Your task to perform on an android device: uninstall "Microsoft Authenticator" Image 0: 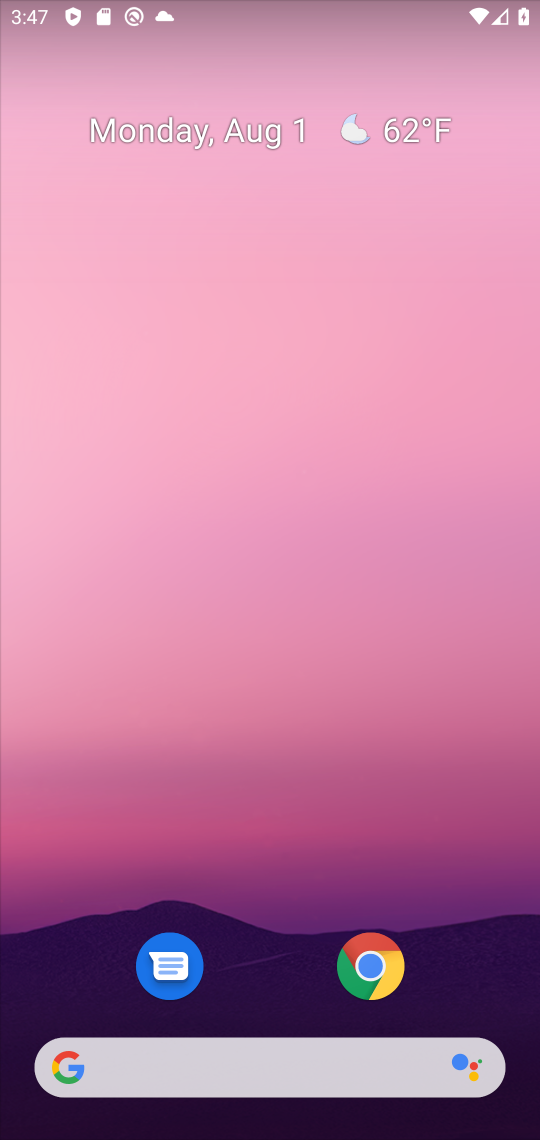
Step 0: press home button
Your task to perform on an android device: uninstall "Microsoft Authenticator" Image 1: 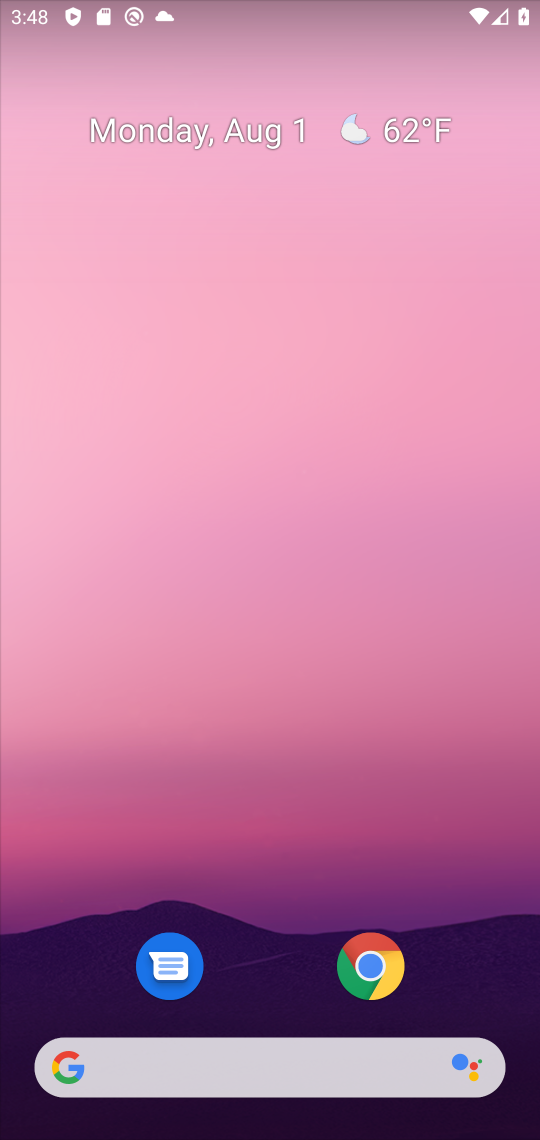
Step 1: drag from (183, 1026) to (109, 180)
Your task to perform on an android device: uninstall "Microsoft Authenticator" Image 2: 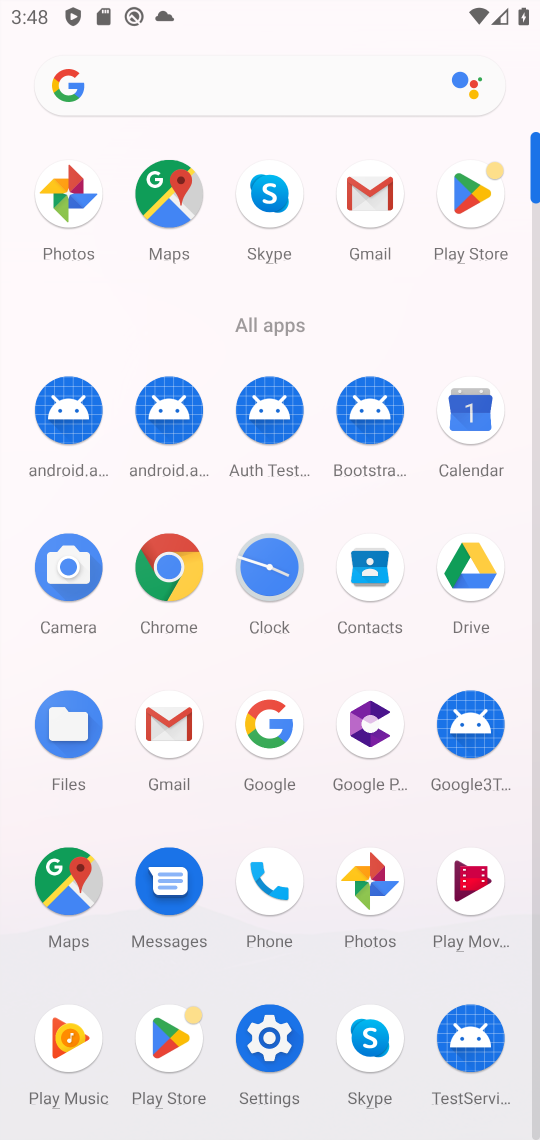
Step 2: click (476, 197)
Your task to perform on an android device: uninstall "Microsoft Authenticator" Image 3: 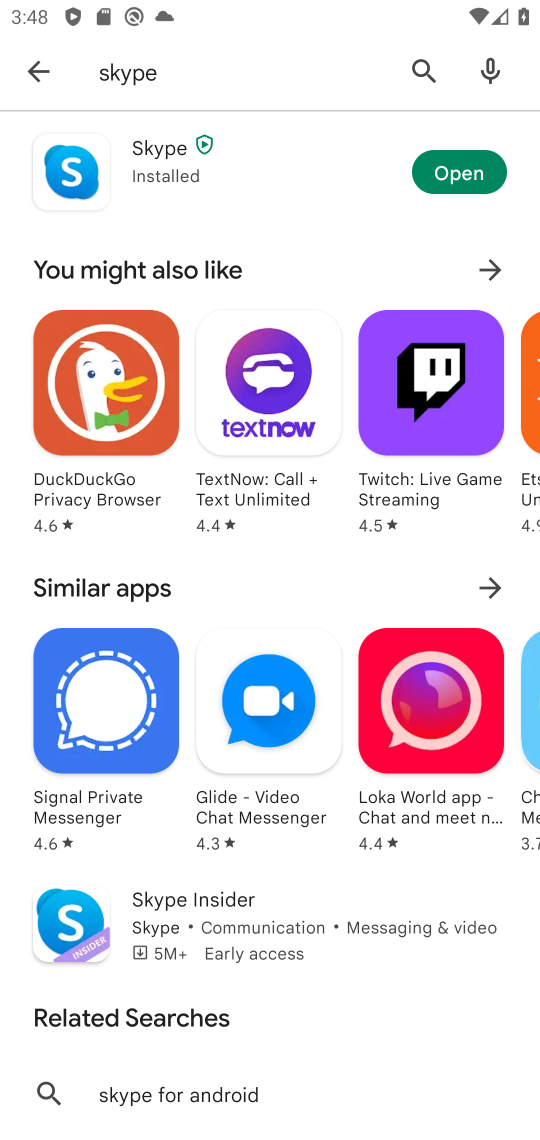
Step 3: click (415, 73)
Your task to perform on an android device: uninstall "Microsoft Authenticator" Image 4: 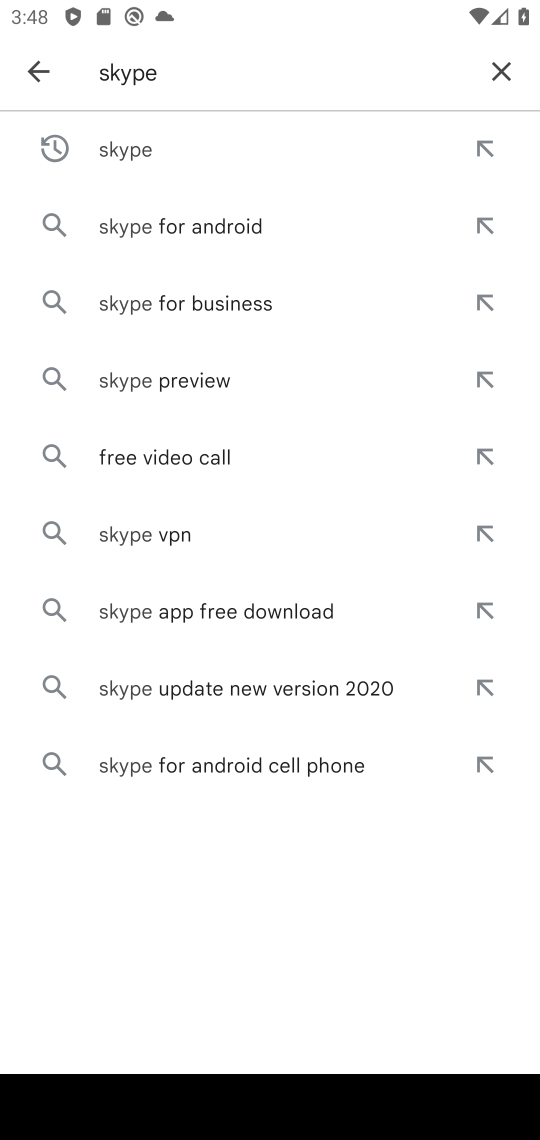
Step 4: click (506, 64)
Your task to perform on an android device: uninstall "Microsoft Authenticator" Image 5: 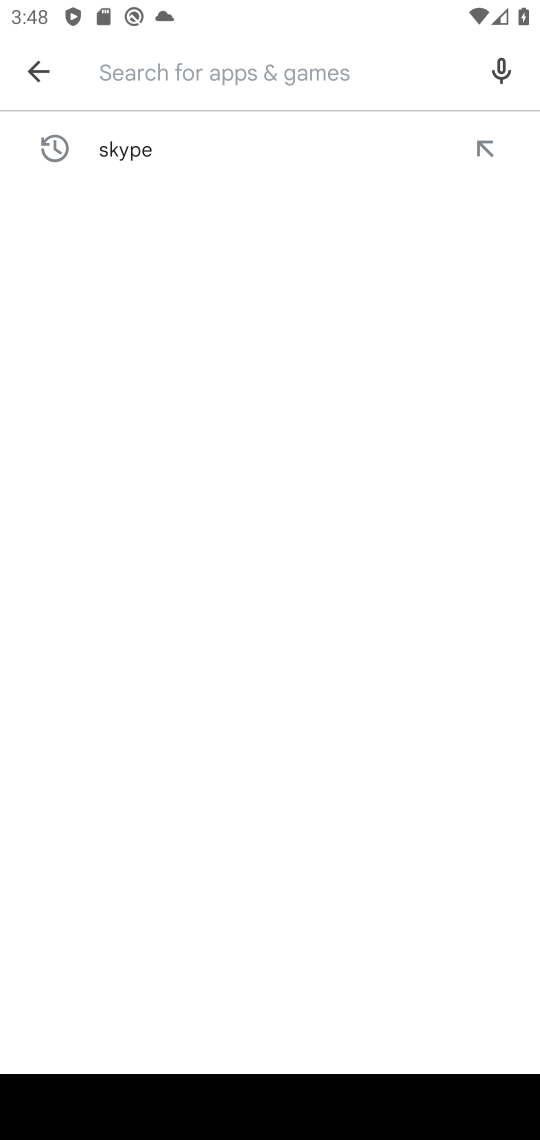
Step 5: type "Microsoft Authenticator"
Your task to perform on an android device: uninstall "Microsoft Authenticator" Image 6: 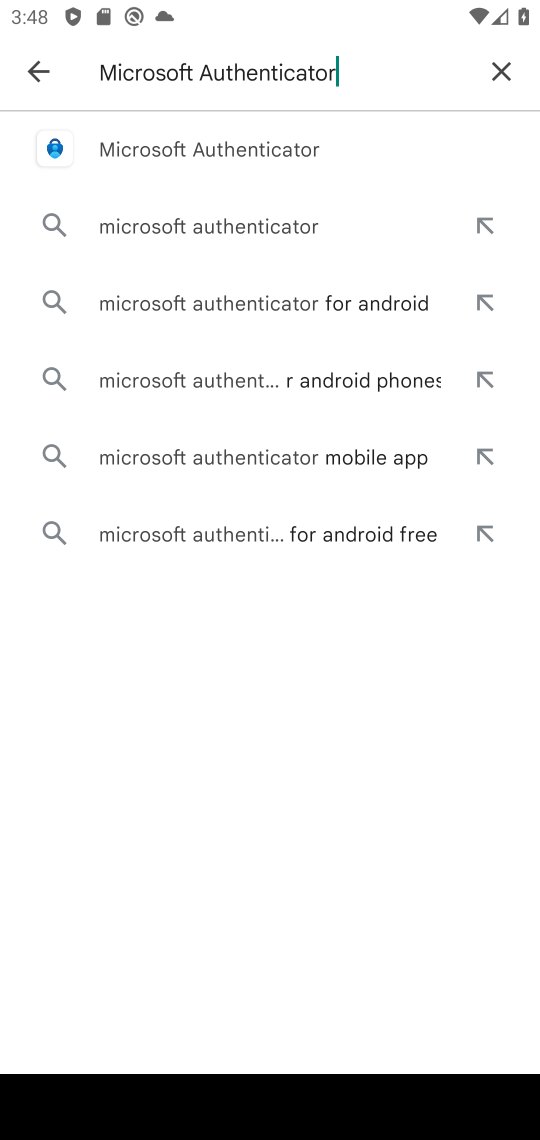
Step 6: click (152, 144)
Your task to perform on an android device: uninstall "Microsoft Authenticator" Image 7: 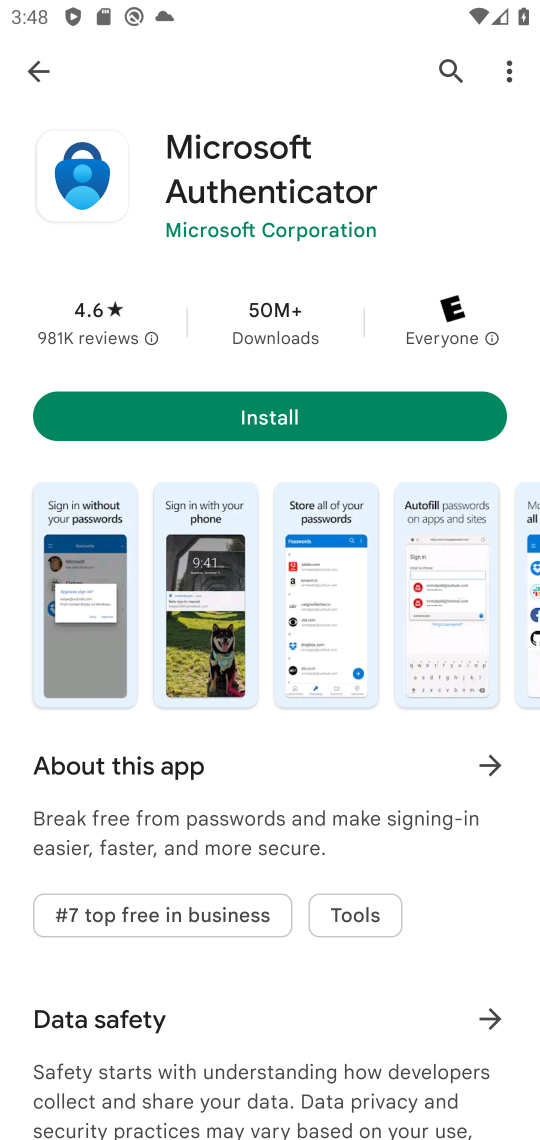
Step 7: task complete